Your task to perform on an android device: turn on translation in the chrome app Image 0: 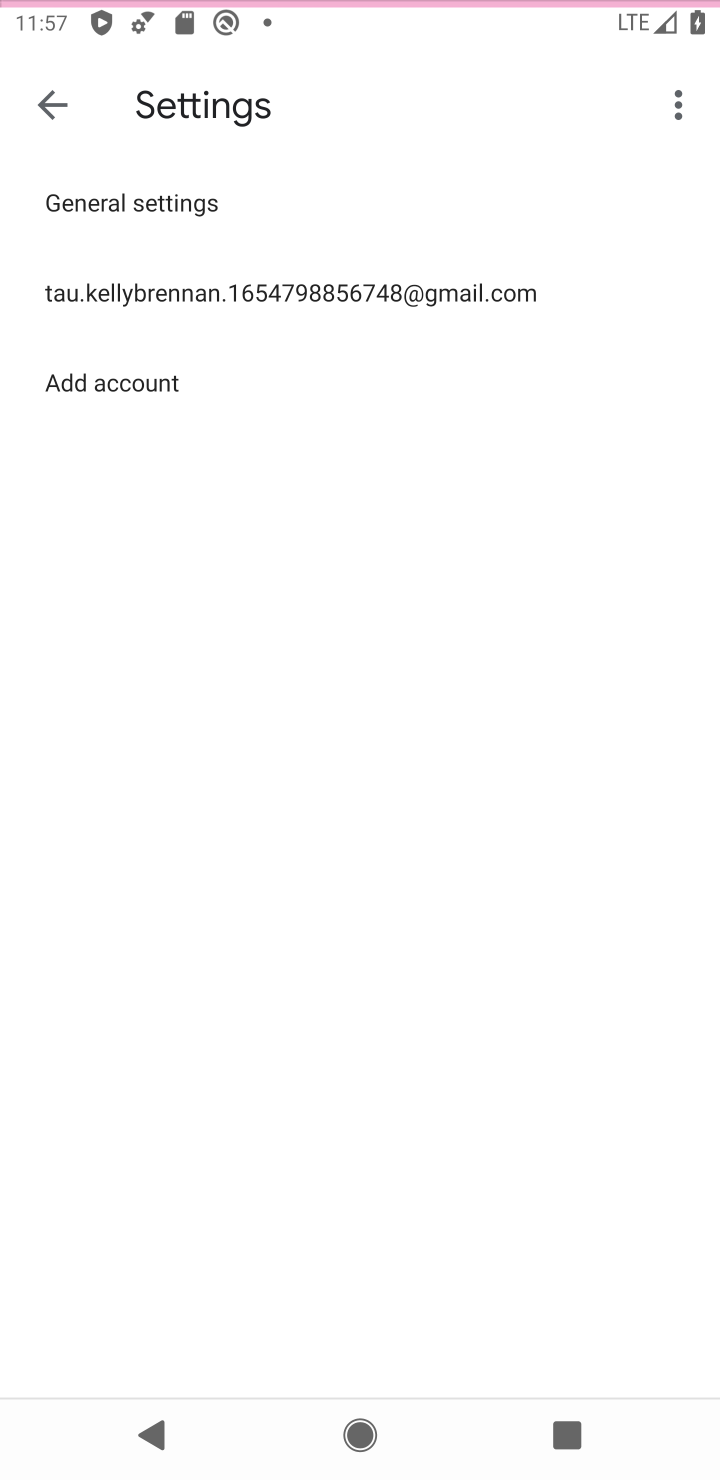
Step 0: press home button
Your task to perform on an android device: turn on translation in the chrome app Image 1: 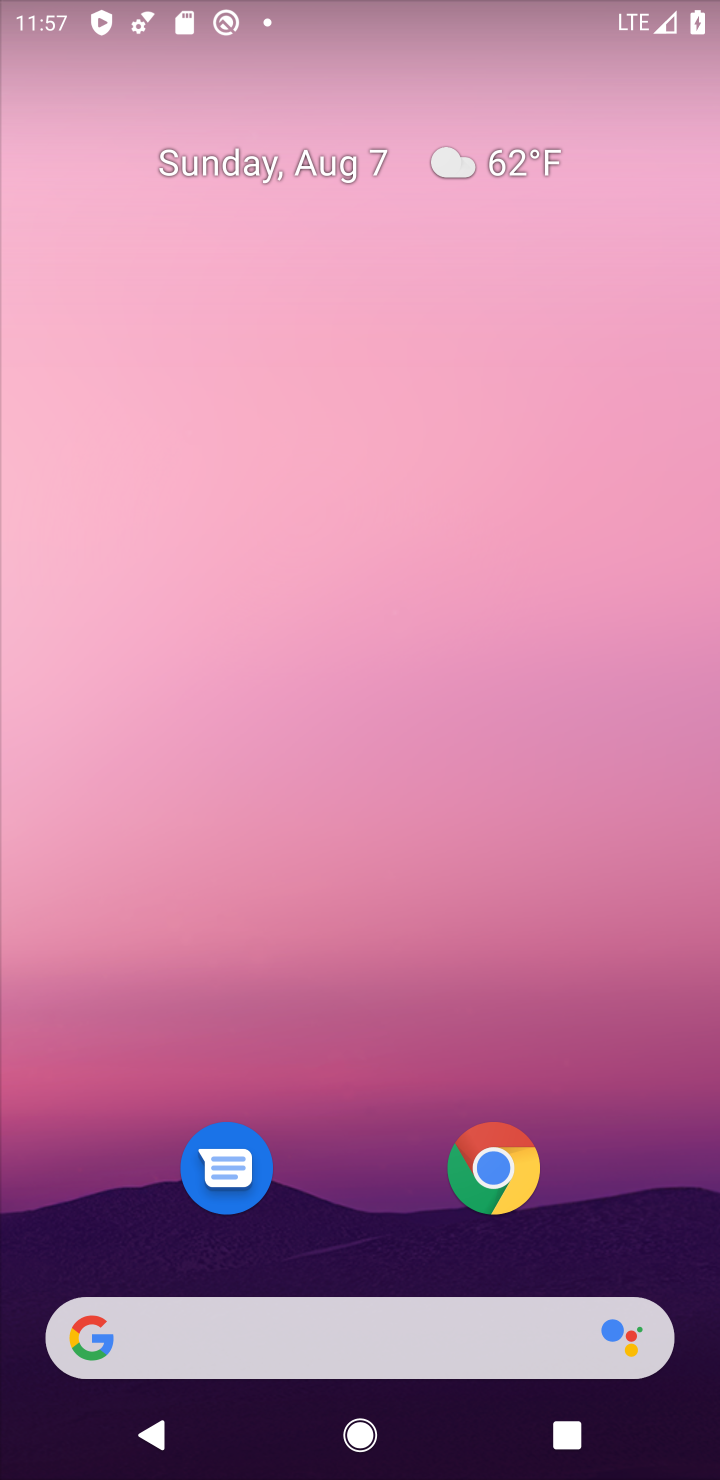
Step 1: click (484, 1174)
Your task to perform on an android device: turn on translation in the chrome app Image 2: 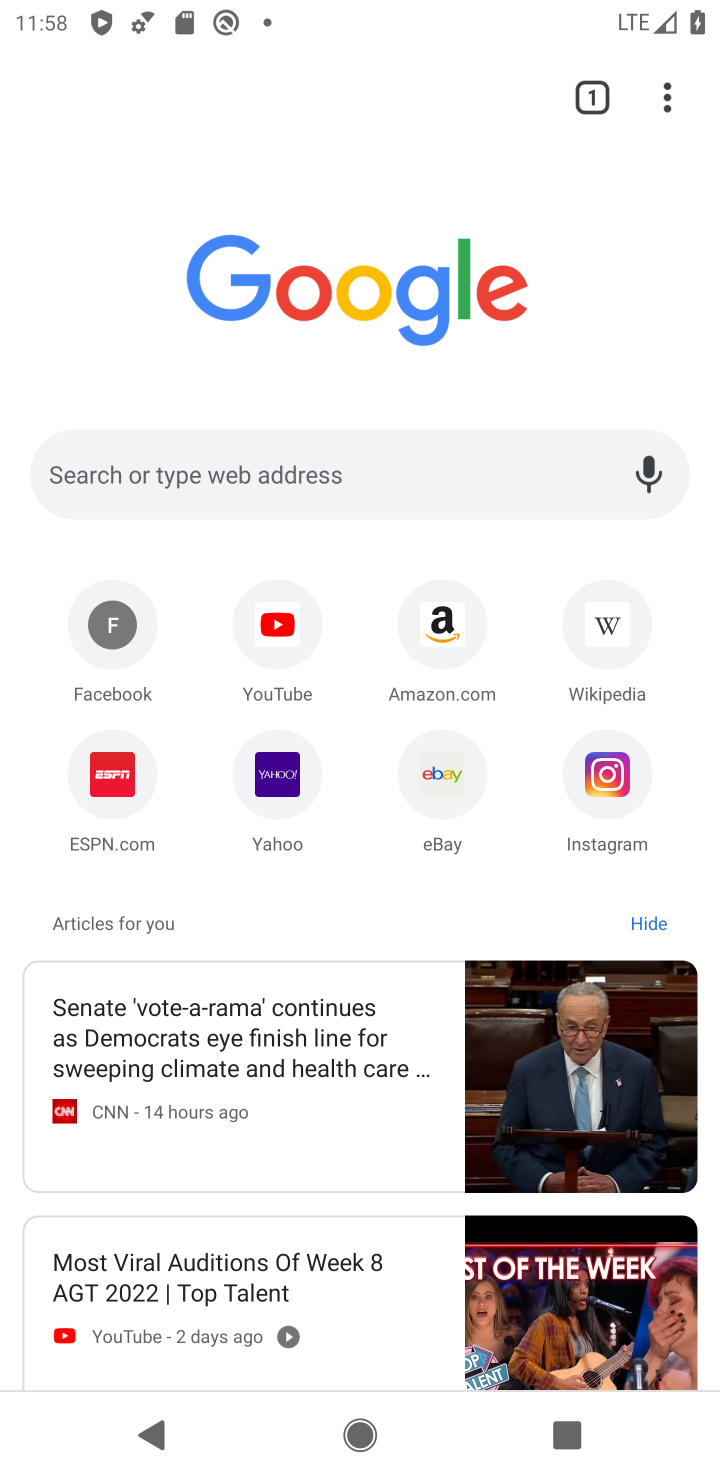
Step 2: drag from (664, 83) to (302, 907)
Your task to perform on an android device: turn on translation in the chrome app Image 3: 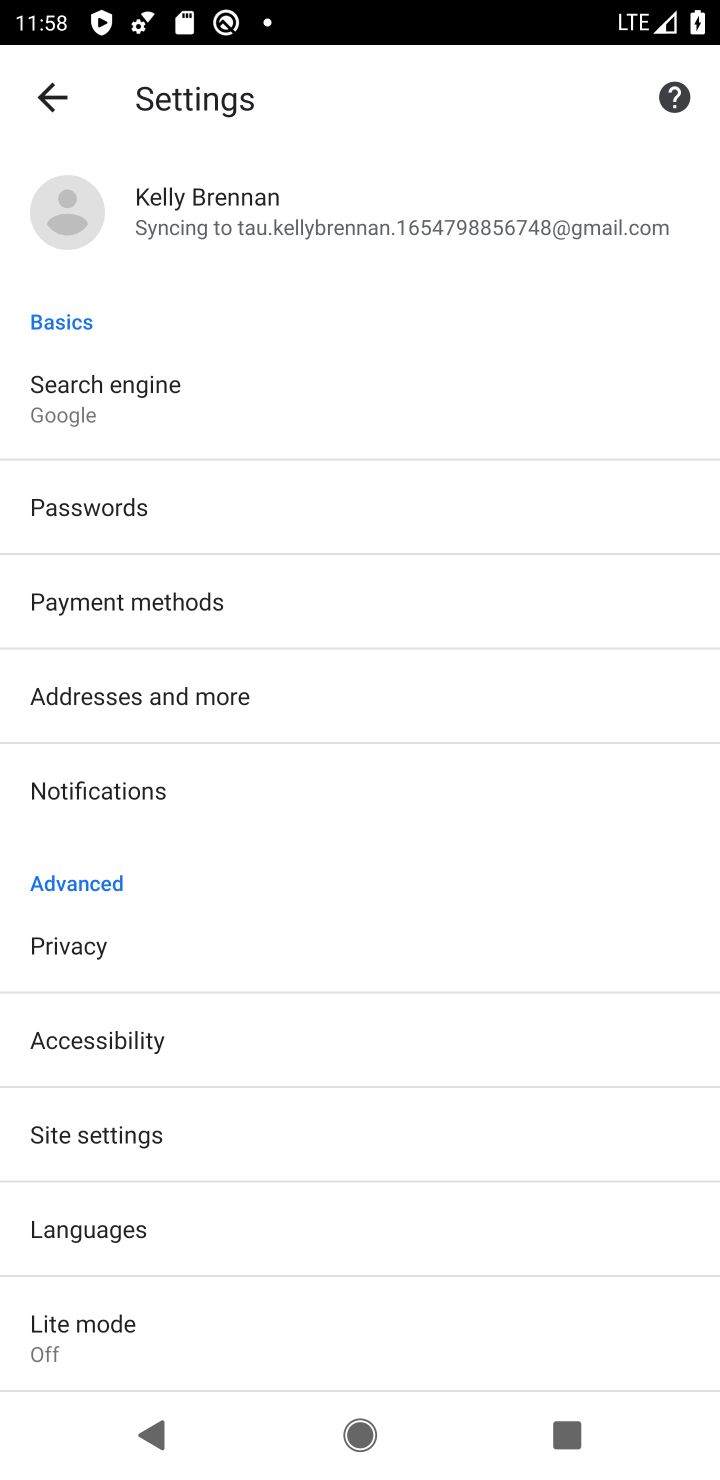
Step 3: click (87, 1227)
Your task to perform on an android device: turn on translation in the chrome app Image 4: 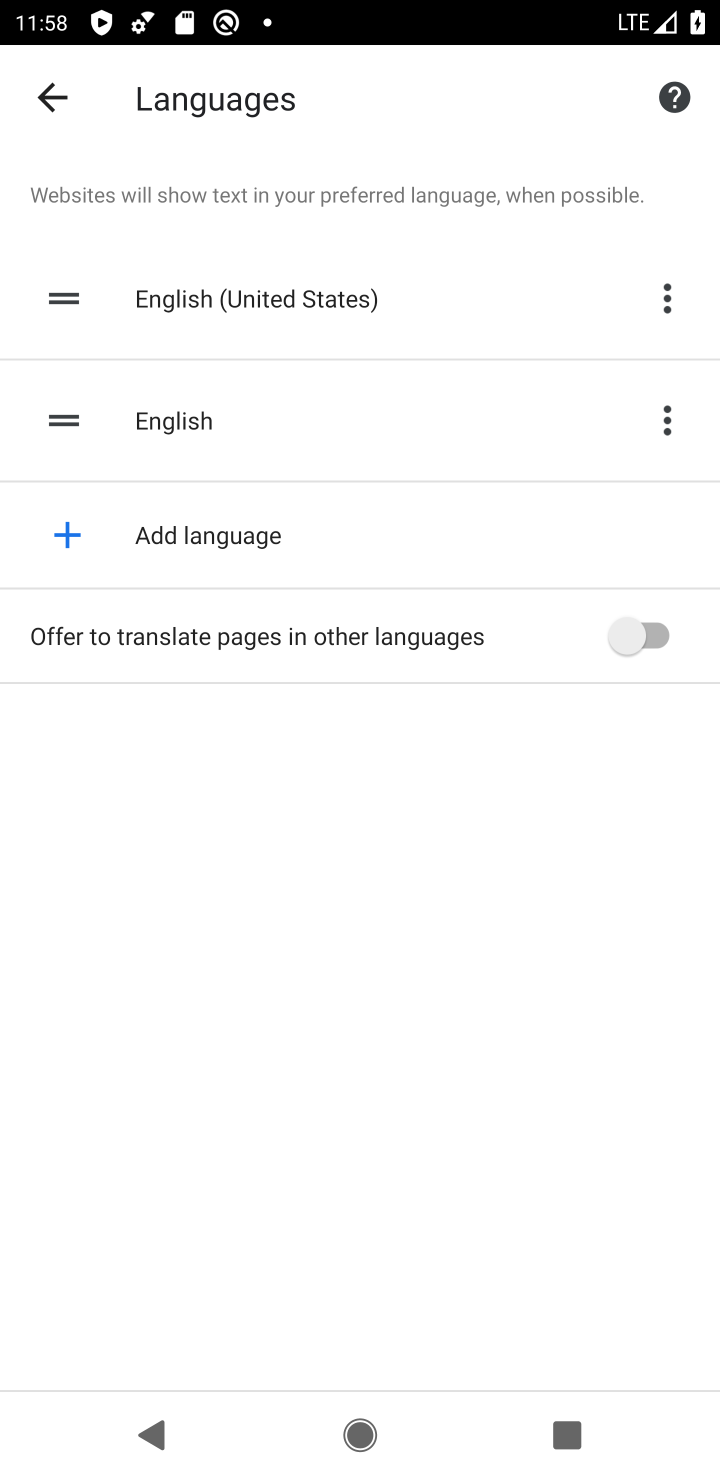
Step 4: click (643, 635)
Your task to perform on an android device: turn on translation in the chrome app Image 5: 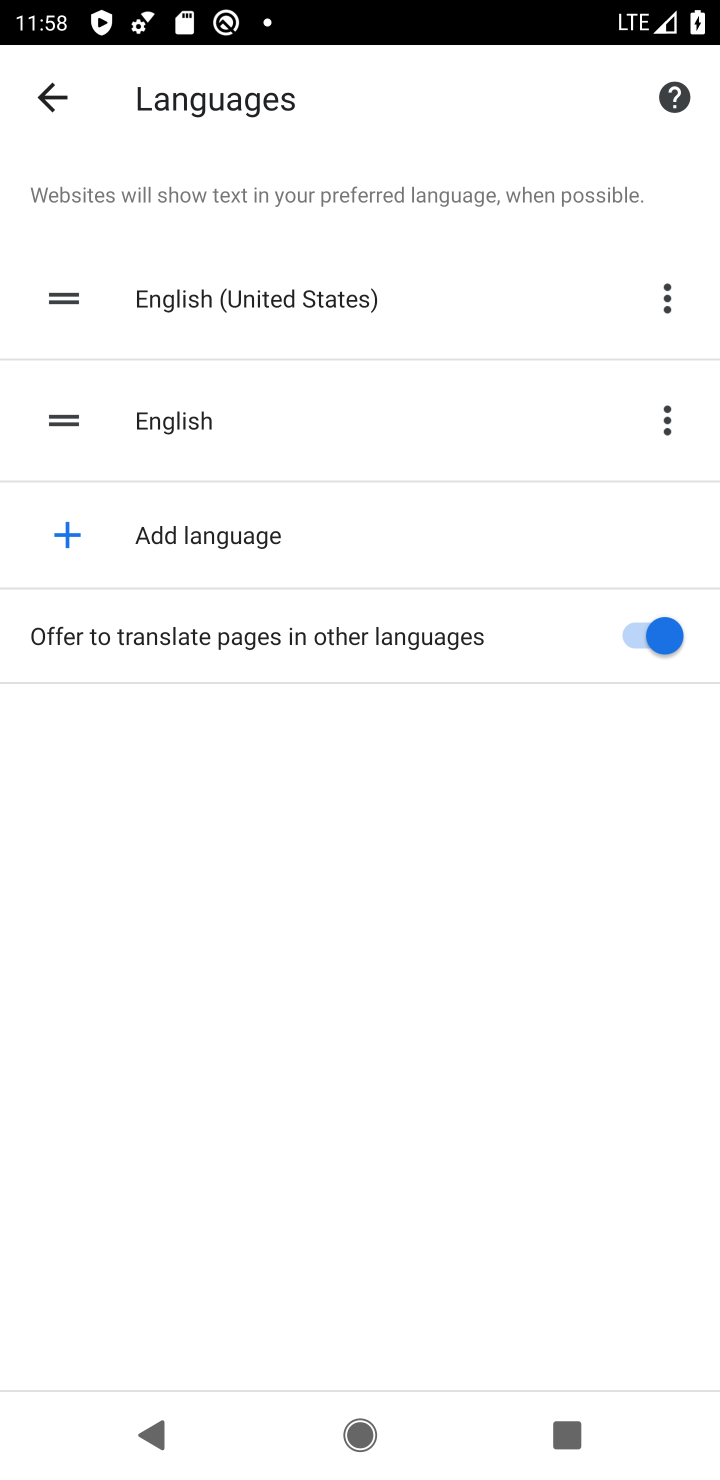
Step 5: task complete